Your task to perform on an android device: remove spam from my inbox in the gmail app Image 0: 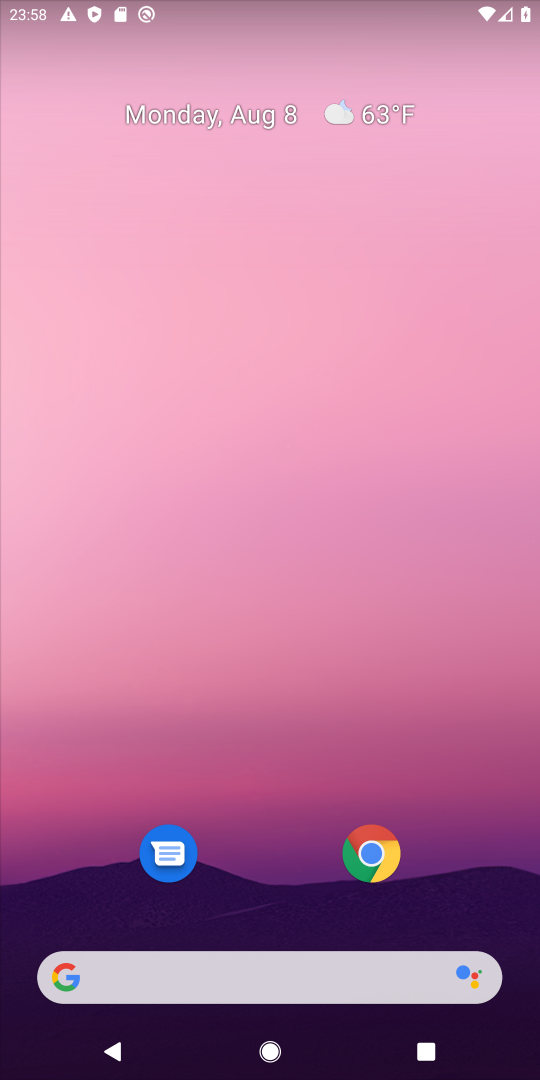
Step 0: drag from (254, 853) to (283, 75)
Your task to perform on an android device: remove spam from my inbox in the gmail app Image 1: 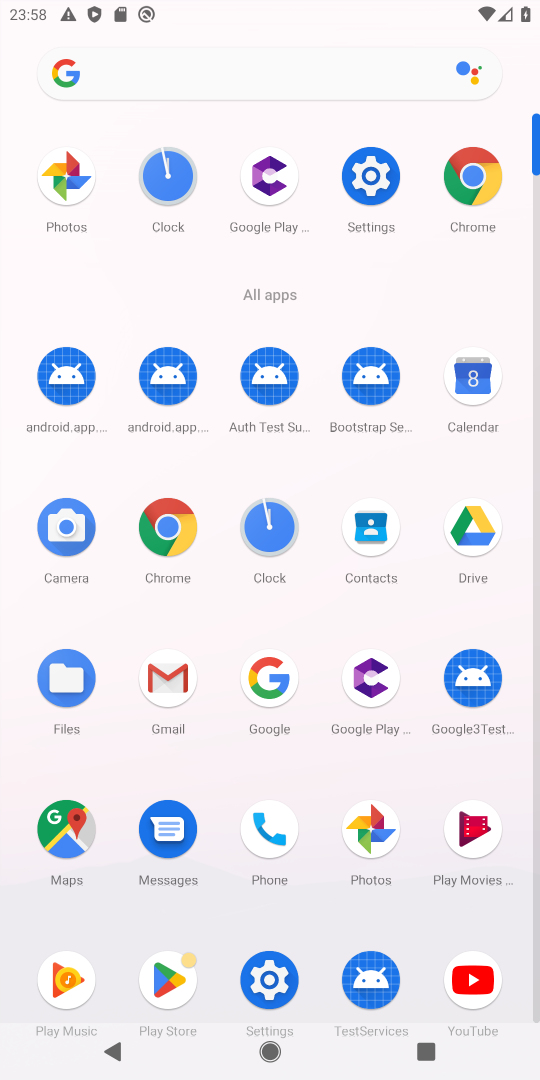
Step 1: click (158, 674)
Your task to perform on an android device: remove spam from my inbox in the gmail app Image 2: 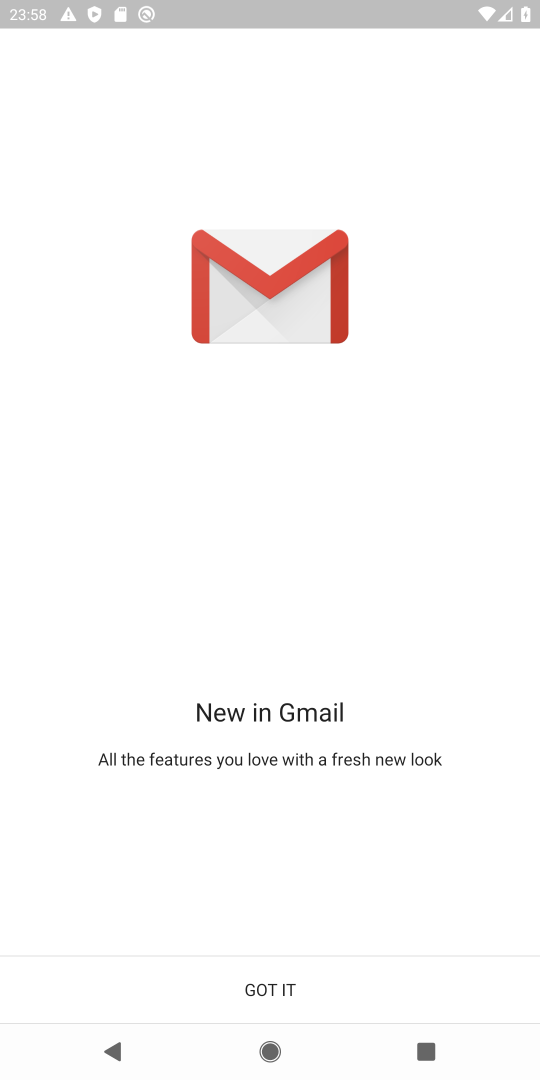
Step 2: click (382, 987)
Your task to perform on an android device: remove spam from my inbox in the gmail app Image 3: 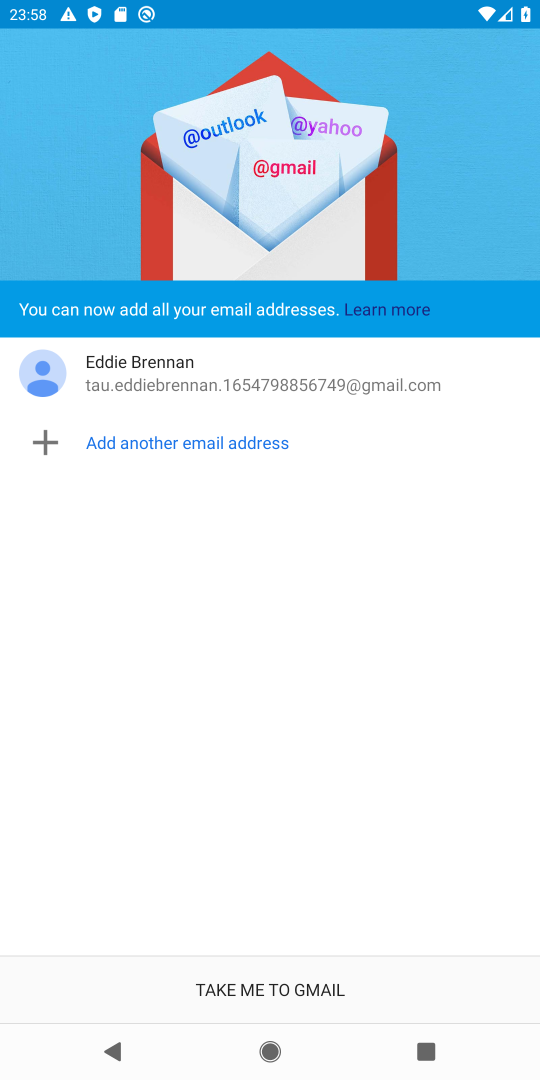
Step 3: click (367, 987)
Your task to perform on an android device: remove spam from my inbox in the gmail app Image 4: 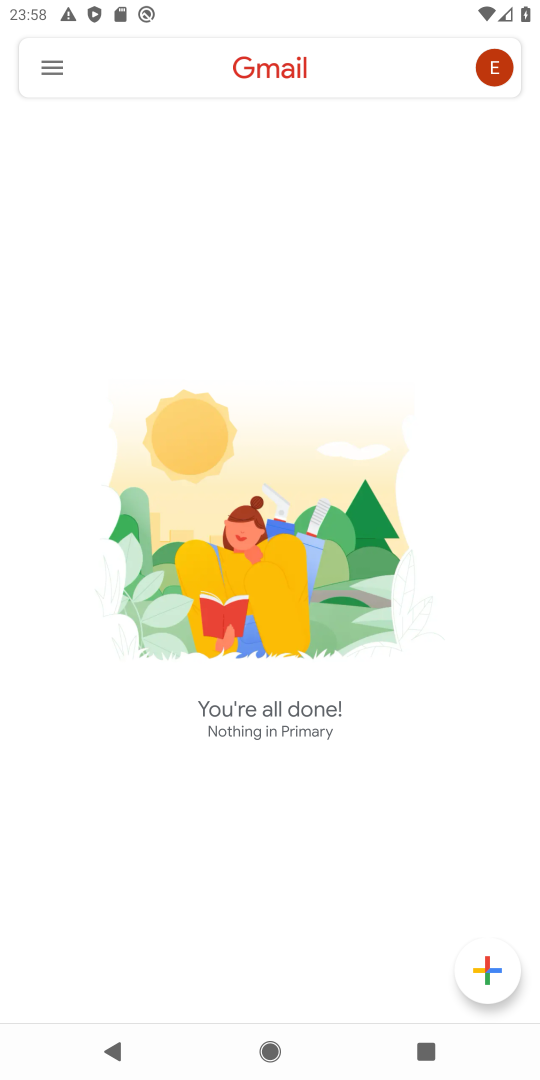
Step 4: click (53, 55)
Your task to perform on an android device: remove spam from my inbox in the gmail app Image 5: 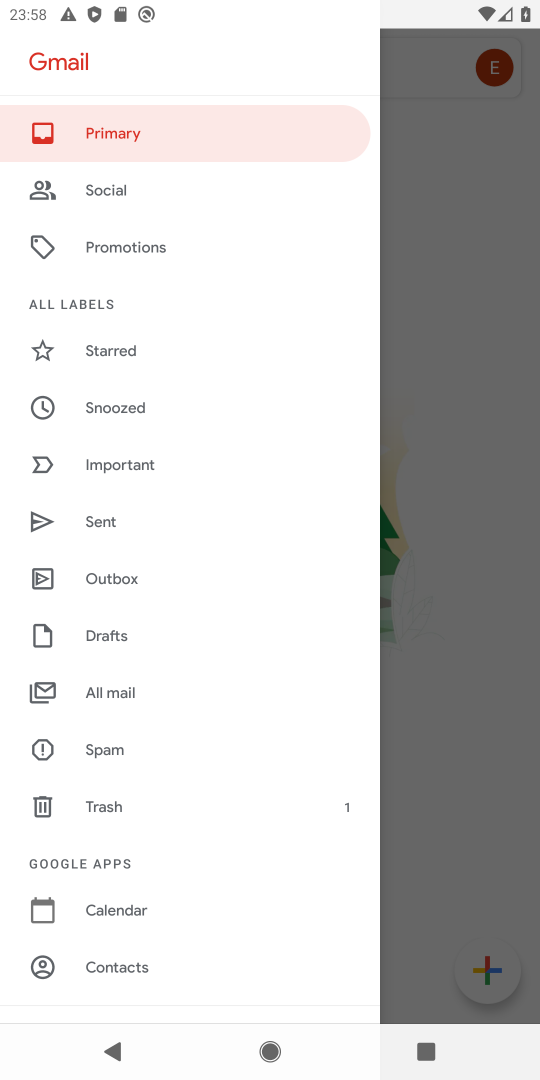
Step 5: click (103, 758)
Your task to perform on an android device: remove spam from my inbox in the gmail app Image 6: 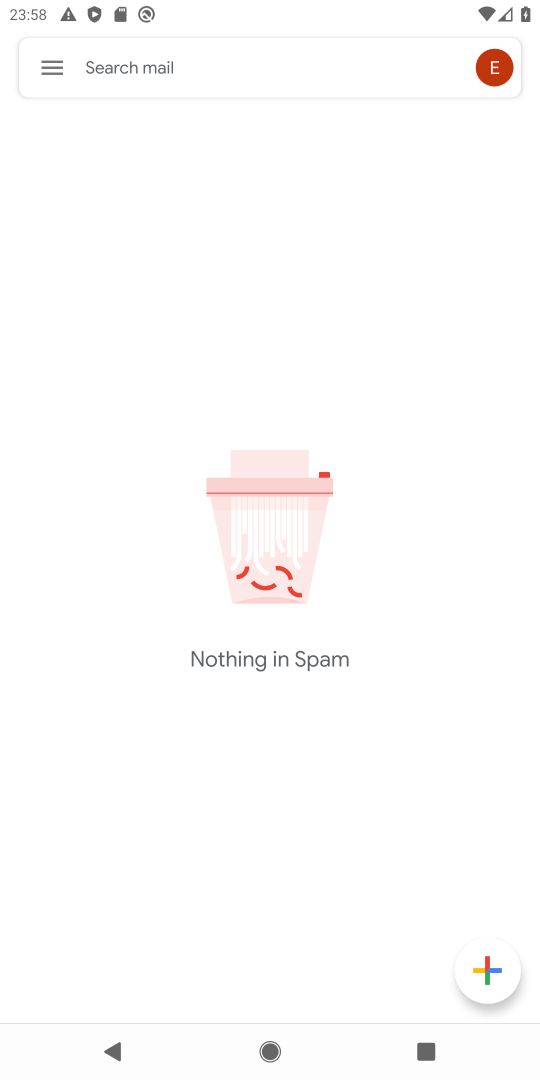
Step 6: task complete